Your task to perform on an android device: turn off javascript in the chrome app Image 0: 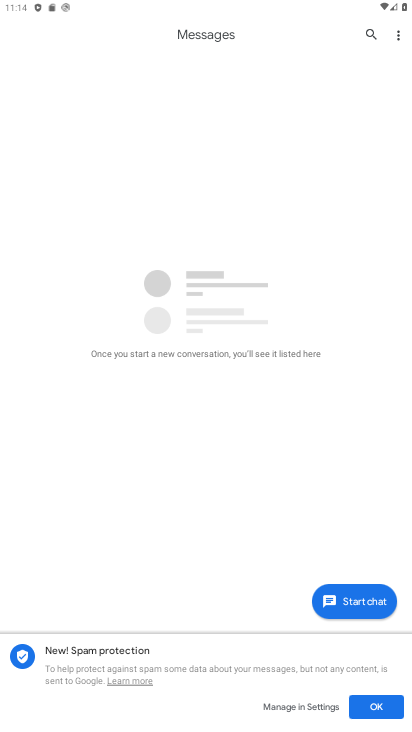
Step 0: press home button
Your task to perform on an android device: turn off javascript in the chrome app Image 1: 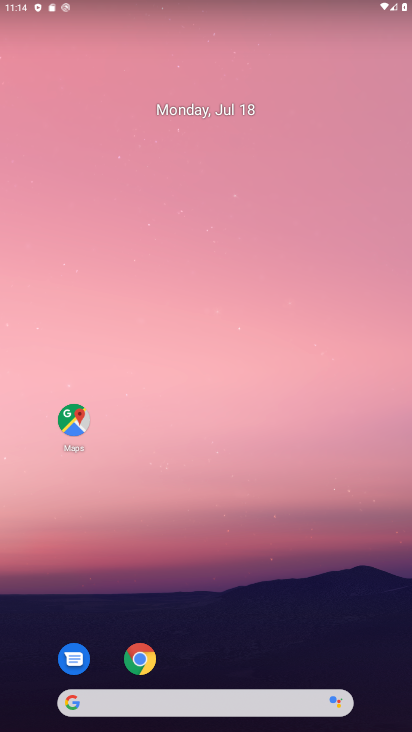
Step 1: drag from (292, 642) to (269, 98)
Your task to perform on an android device: turn off javascript in the chrome app Image 2: 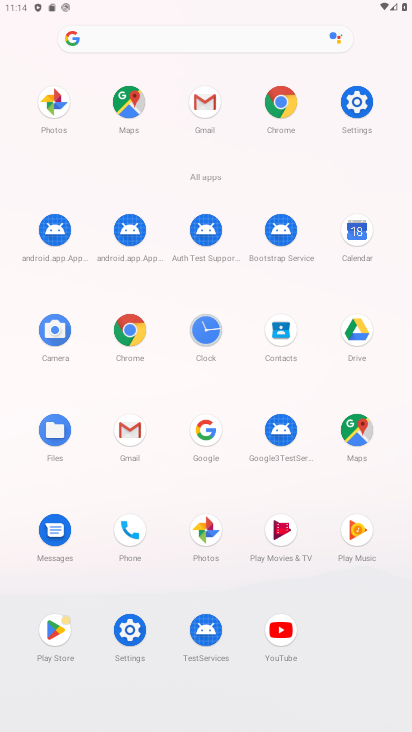
Step 2: click (282, 99)
Your task to perform on an android device: turn off javascript in the chrome app Image 3: 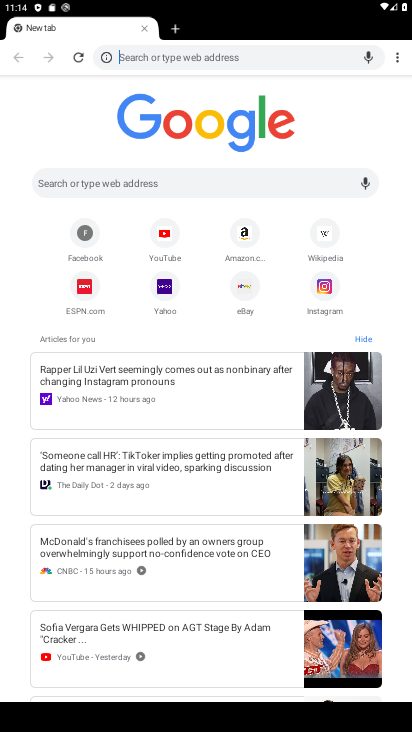
Step 3: click (398, 62)
Your task to perform on an android device: turn off javascript in the chrome app Image 4: 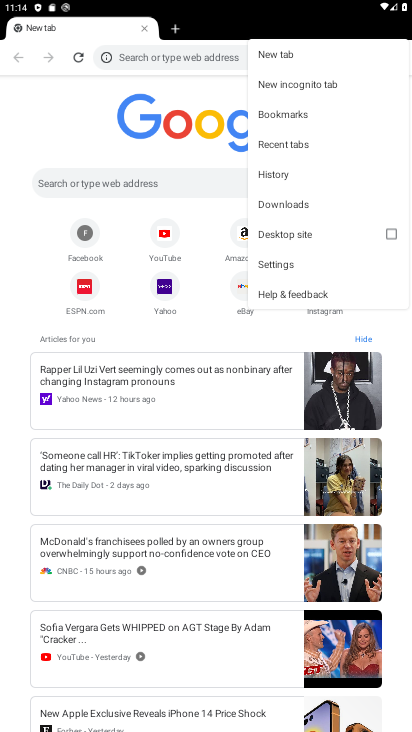
Step 4: click (294, 264)
Your task to perform on an android device: turn off javascript in the chrome app Image 5: 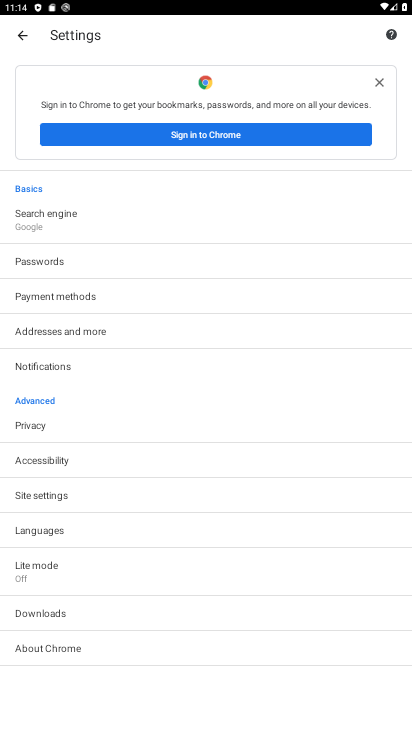
Step 5: click (66, 493)
Your task to perform on an android device: turn off javascript in the chrome app Image 6: 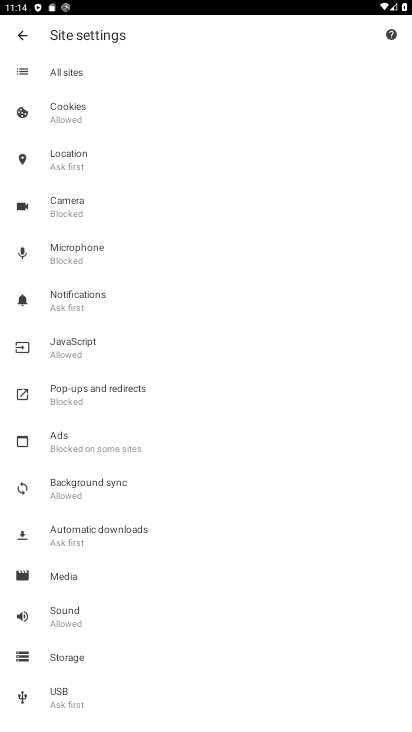
Step 6: click (127, 350)
Your task to perform on an android device: turn off javascript in the chrome app Image 7: 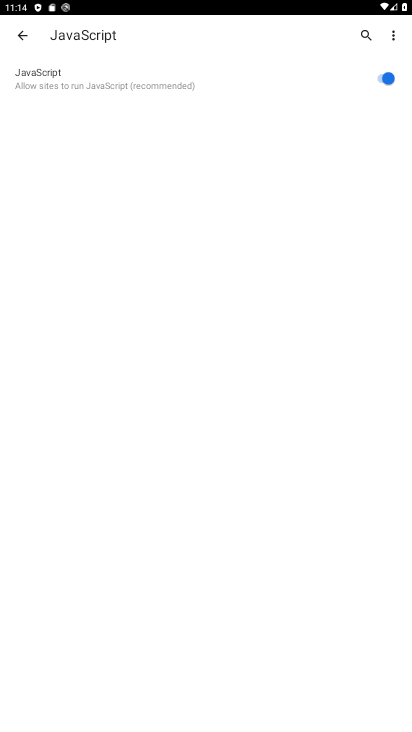
Step 7: click (387, 85)
Your task to perform on an android device: turn off javascript in the chrome app Image 8: 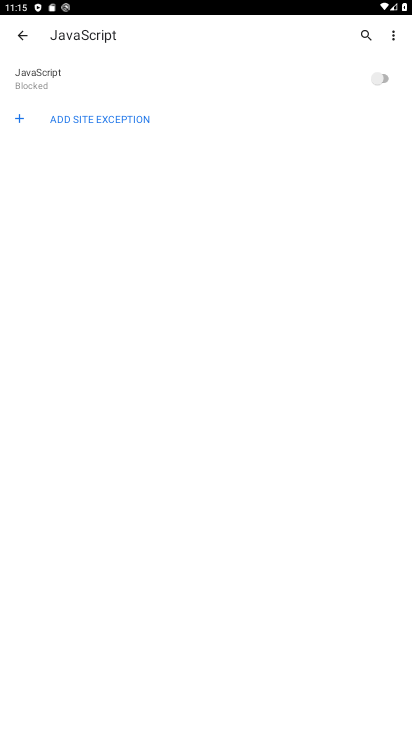
Step 8: task complete